Your task to perform on an android device: Go to Yahoo.com Image 0: 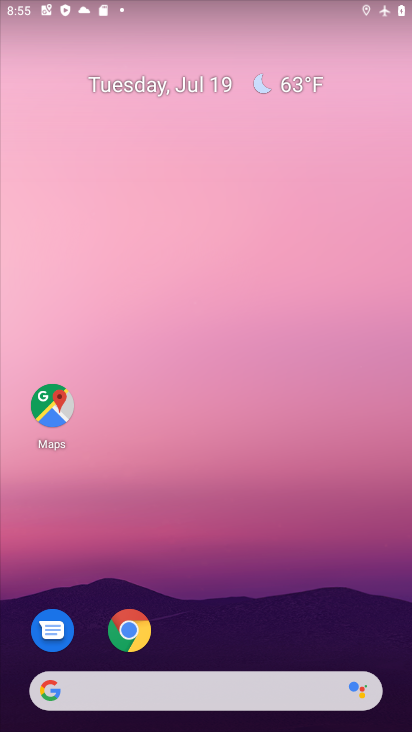
Step 0: click (128, 627)
Your task to perform on an android device: Go to Yahoo.com Image 1: 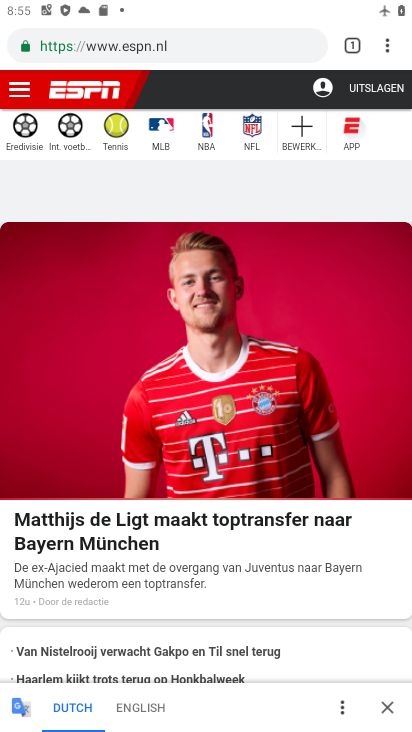
Step 1: click (212, 49)
Your task to perform on an android device: Go to Yahoo.com Image 2: 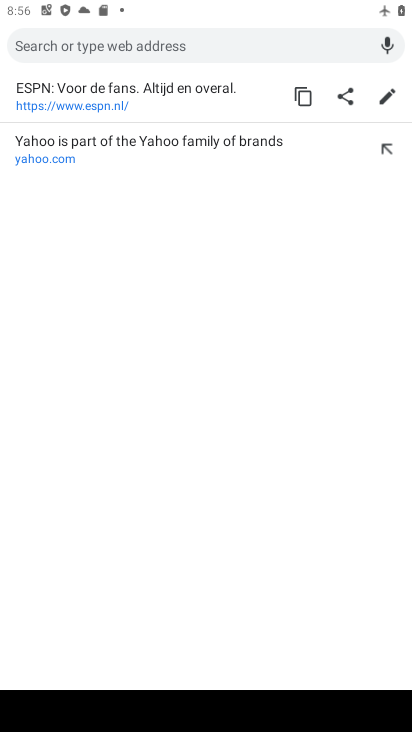
Step 2: type "Yahoo.com"
Your task to perform on an android device: Go to Yahoo.com Image 3: 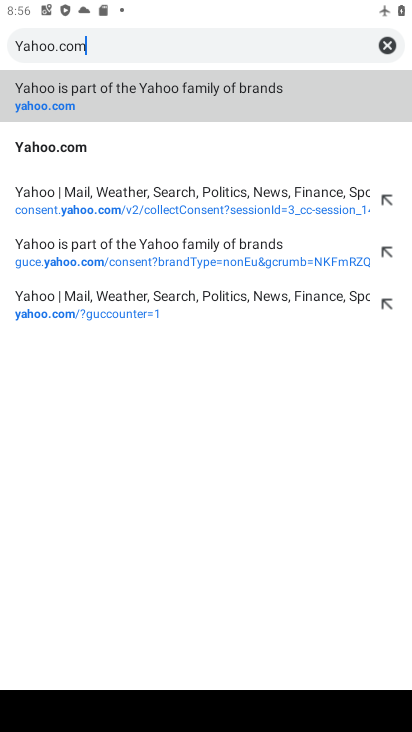
Step 3: click (68, 149)
Your task to perform on an android device: Go to Yahoo.com Image 4: 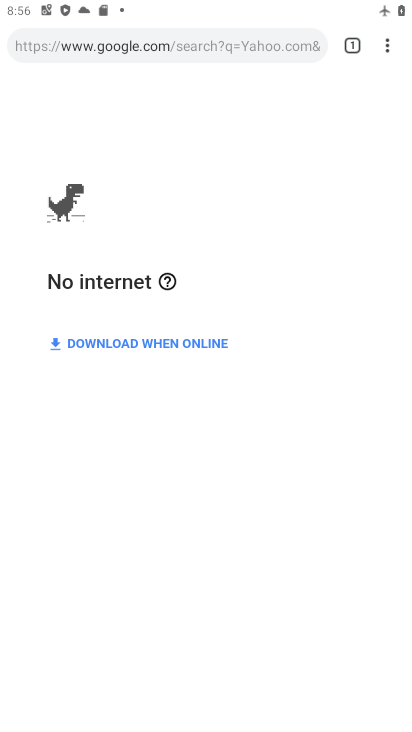
Step 4: task complete